Your task to perform on an android device: Search for Mexican restaurants on Maps Image 0: 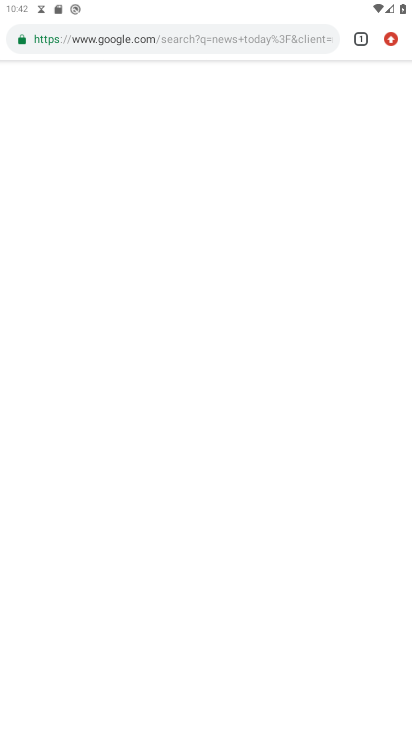
Step 0: press home button
Your task to perform on an android device: Search for Mexican restaurants on Maps Image 1: 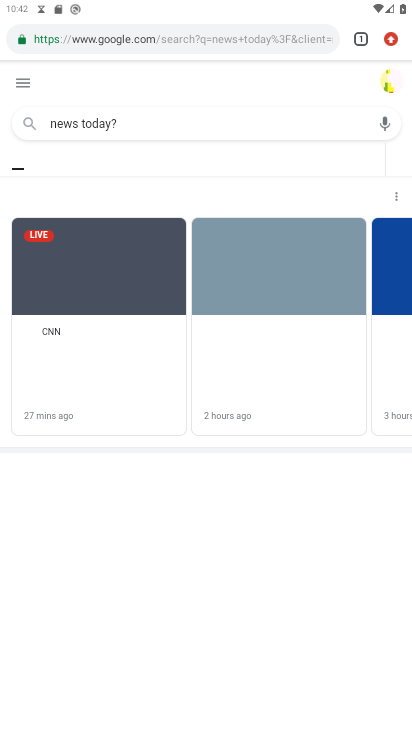
Step 1: press home button
Your task to perform on an android device: Search for Mexican restaurants on Maps Image 2: 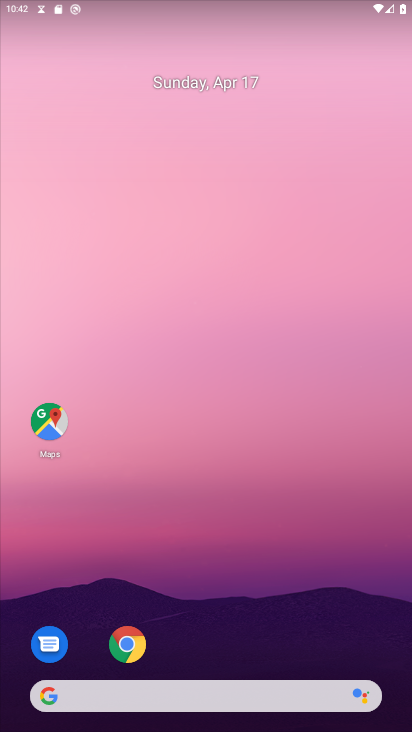
Step 2: click (40, 411)
Your task to perform on an android device: Search for Mexican restaurants on Maps Image 3: 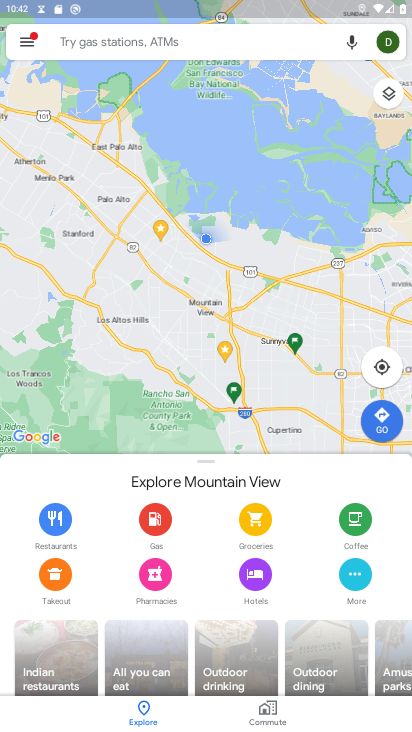
Step 3: click (184, 45)
Your task to perform on an android device: Search for Mexican restaurants on Maps Image 4: 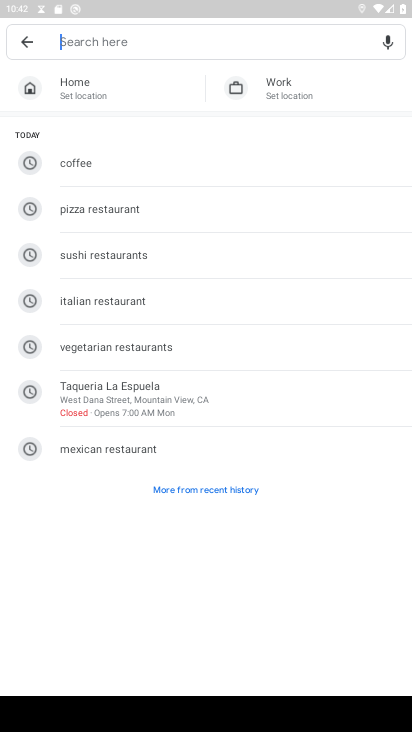
Step 4: type "mexican restaurants"
Your task to perform on an android device: Search for Mexican restaurants on Maps Image 5: 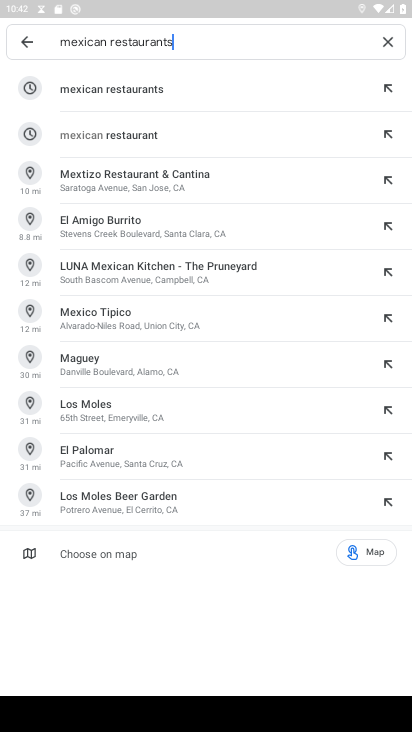
Step 5: click (170, 87)
Your task to perform on an android device: Search for Mexican restaurants on Maps Image 6: 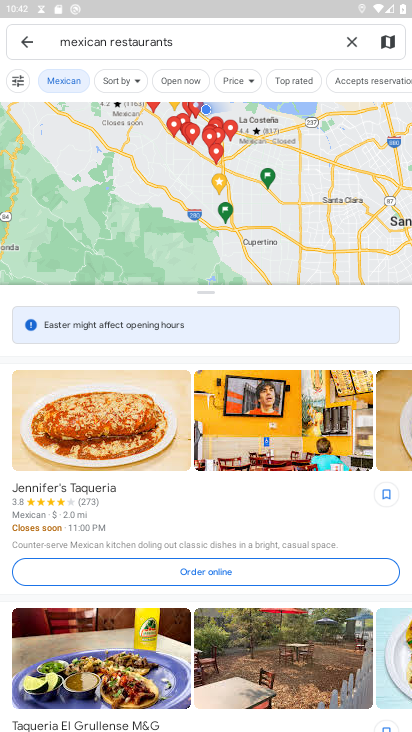
Step 6: task complete